Your task to perform on an android device: Open the calendar app, open the side menu, and click the "Day" option Image 0: 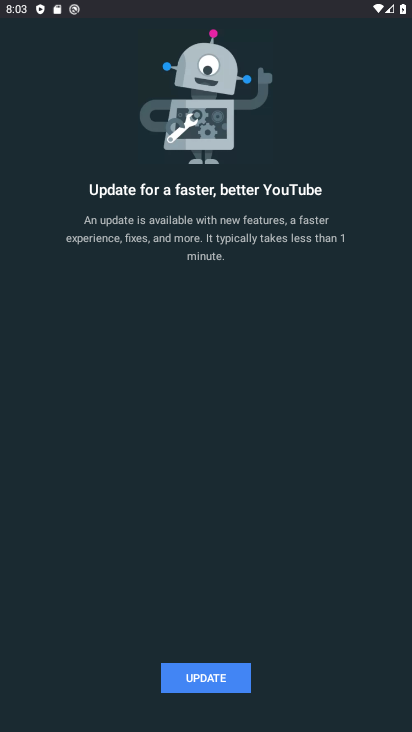
Step 0: press home button
Your task to perform on an android device: Open the calendar app, open the side menu, and click the "Day" option Image 1: 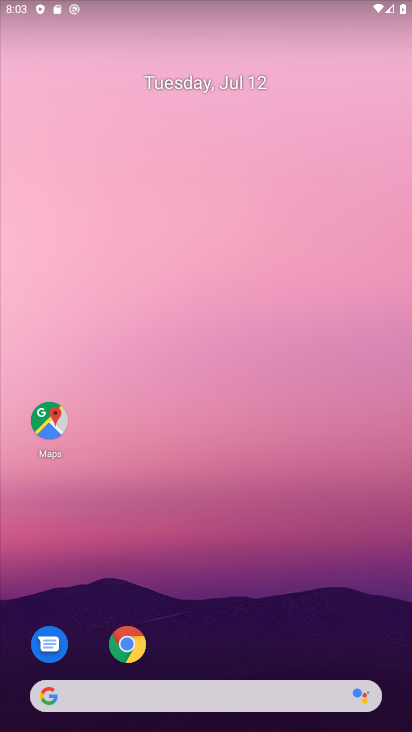
Step 1: drag from (118, 406) to (222, 124)
Your task to perform on an android device: Open the calendar app, open the side menu, and click the "Day" option Image 2: 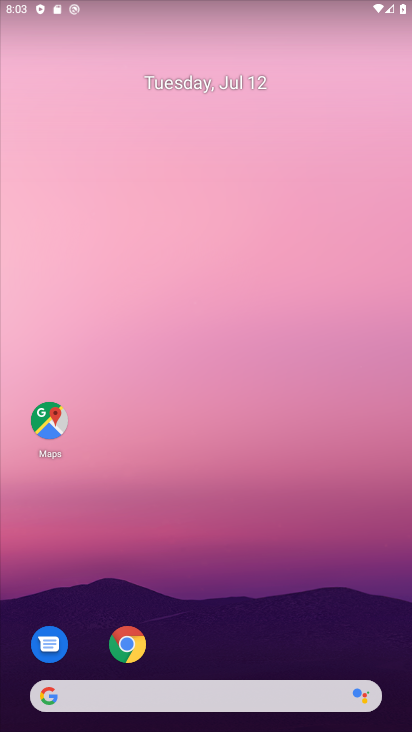
Step 2: drag from (22, 691) to (267, 35)
Your task to perform on an android device: Open the calendar app, open the side menu, and click the "Day" option Image 3: 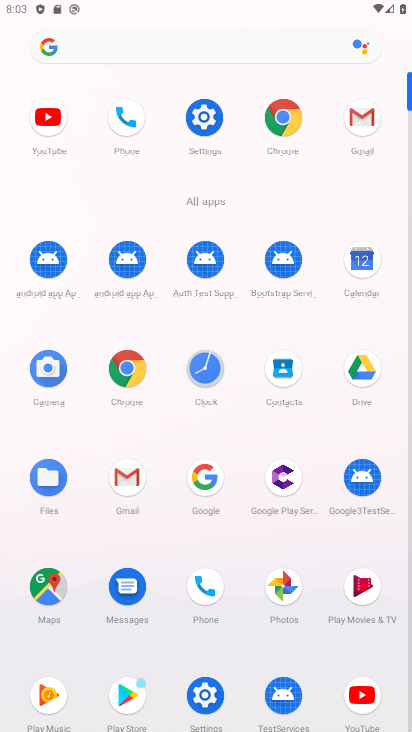
Step 3: click (365, 267)
Your task to perform on an android device: Open the calendar app, open the side menu, and click the "Day" option Image 4: 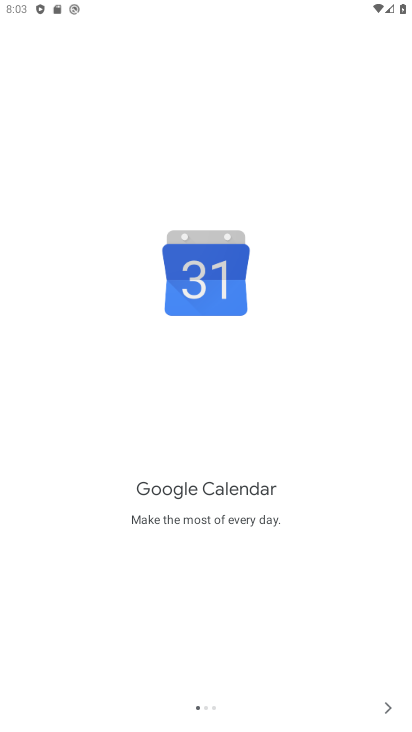
Step 4: click (381, 707)
Your task to perform on an android device: Open the calendar app, open the side menu, and click the "Day" option Image 5: 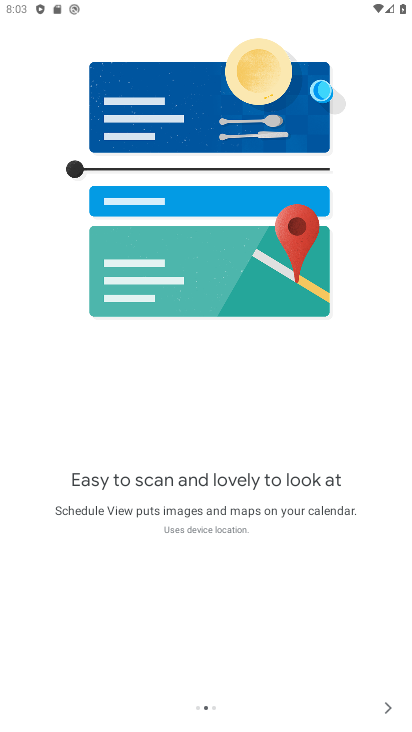
Step 5: click (378, 693)
Your task to perform on an android device: Open the calendar app, open the side menu, and click the "Day" option Image 6: 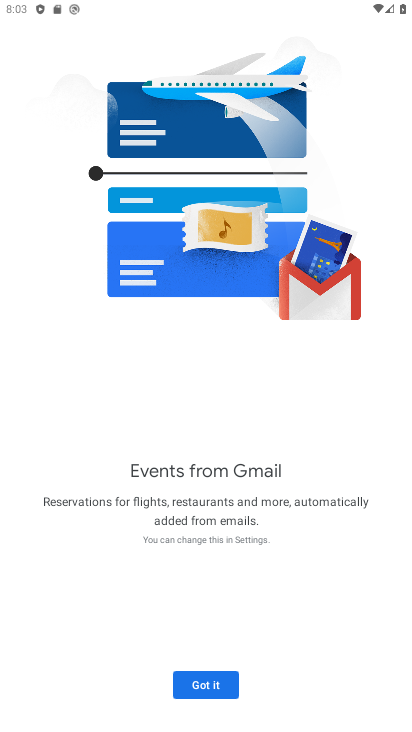
Step 6: click (197, 690)
Your task to perform on an android device: Open the calendar app, open the side menu, and click the "Day" option Image 7: 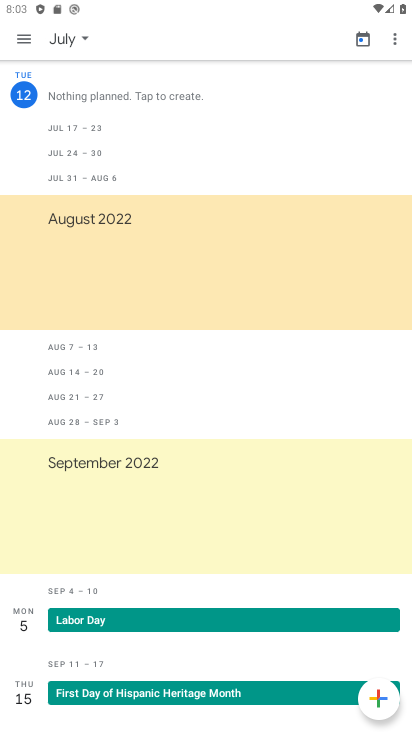
Step 7: click (17, 34)
Your task to perform on an android device: Open the calendar app, open the side menu, and click the "Day" option Image 8: 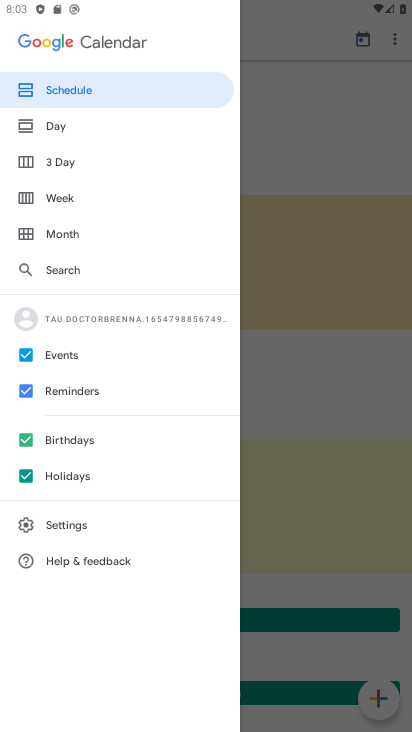
Step 8: click (72, 131)
Your task to perform on an android device: Open the calendar app, open the side menu, and click the "Day" option Image 9: 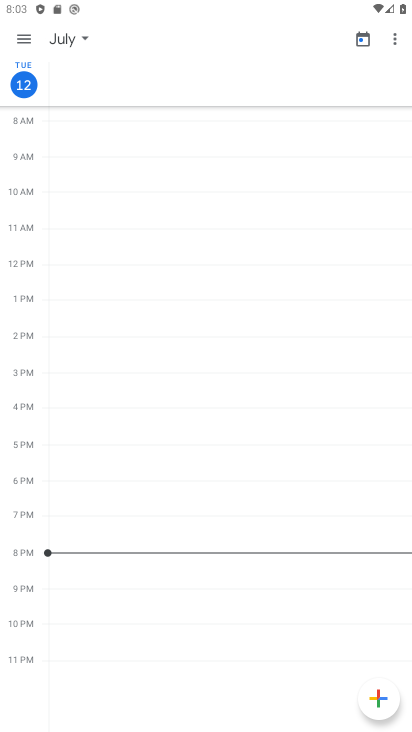
Step 9: task complete